Your task to perform on an android device: turn on the 24-hour format for clock Image 0: 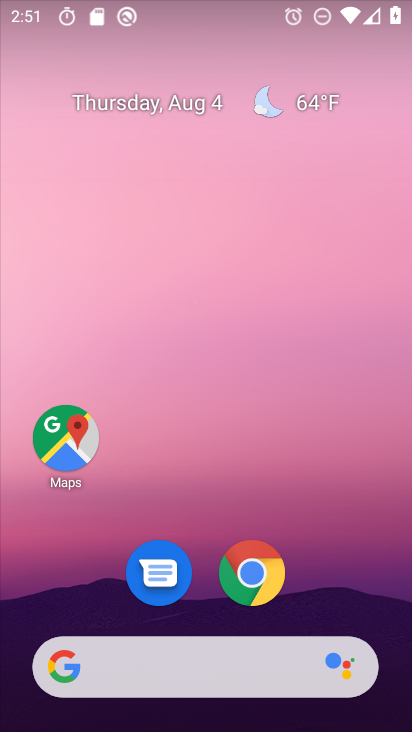
Step 0: drag from (327, 505) to (337, 59)
Your task to perform on an android device: turn on the 24-hour format for clock Image 1: 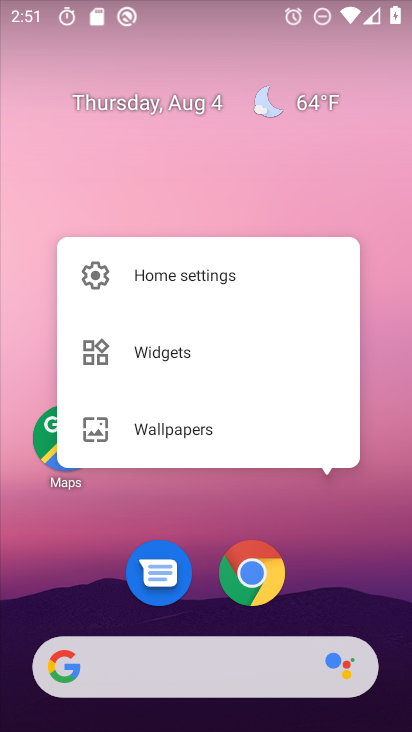
Step 1: click (350, 172)
Your task to perform on an android device: turn on the 24-hour format for clock Image 2: 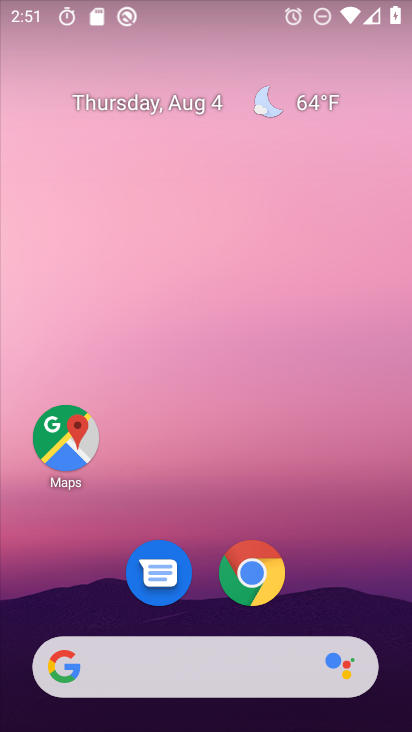
Step 2: drag from (345, 522) to (350, 58)
Your task to perform on an android device: turn on the 24-hour format for clock Image 3: 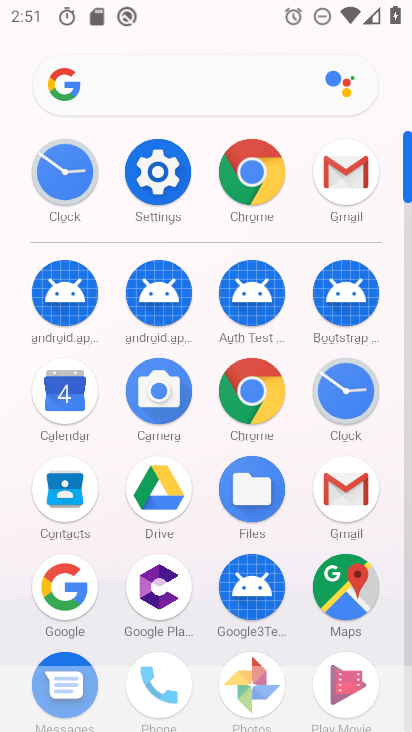
Step 3: click (365, 377)
Your task to perform on an android device: turn on the 24-hour format for clock Image 4: 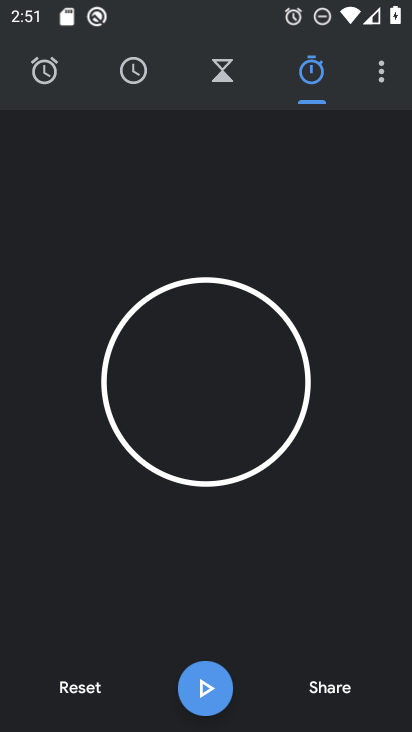
Step 4: click (375, 67)
Your task to perform on an android device: turn on the 24-hour format for clock Image 5: 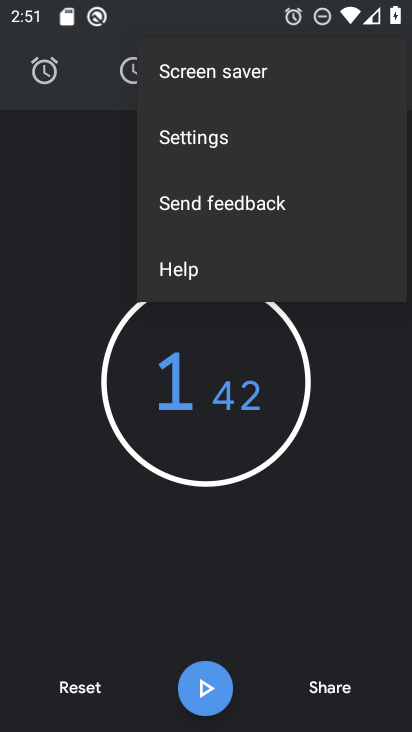
Step 5: click (189, 141)
Your task to perform on an android device: turn on the 24-hour format for clock Image 6: 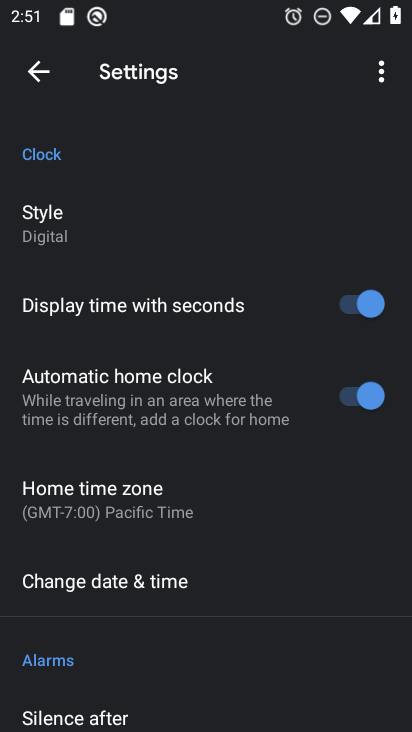
Step 6: click (206, 577)
Your task to perform on an android device: turn on the 24-hour format for clock Image 7: 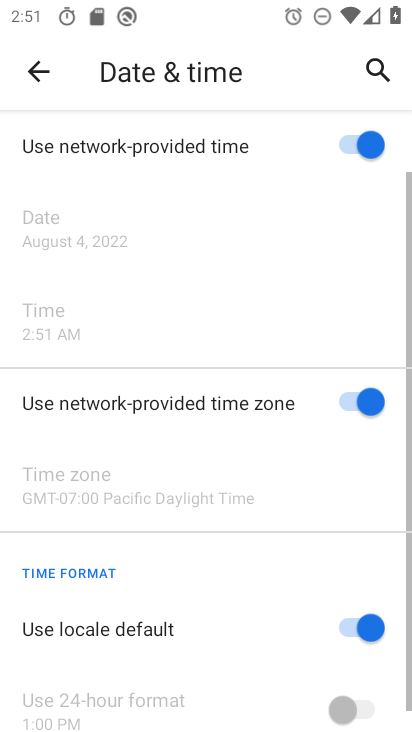
Step 7: drag from (211, 568) to (242, 139)
Your task to perform on an android device: turn on the 24-hour format for clock Image 8: 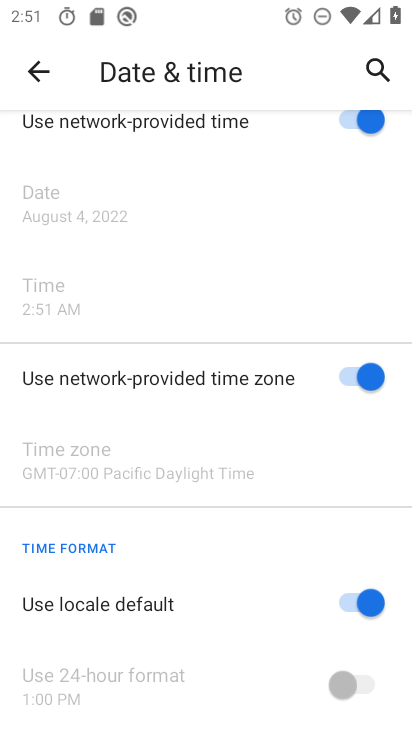
Step 8: click (366, 611)
Your task to perform on an android device: turn on the 24-hour format for clock Image 9: 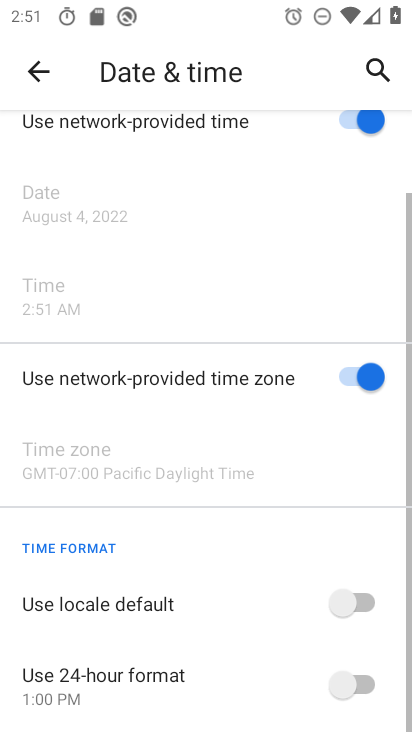
Step 9: click (349, 679)
Your task to perform on an android device: turn on the 24-hour format for clock Image 10: 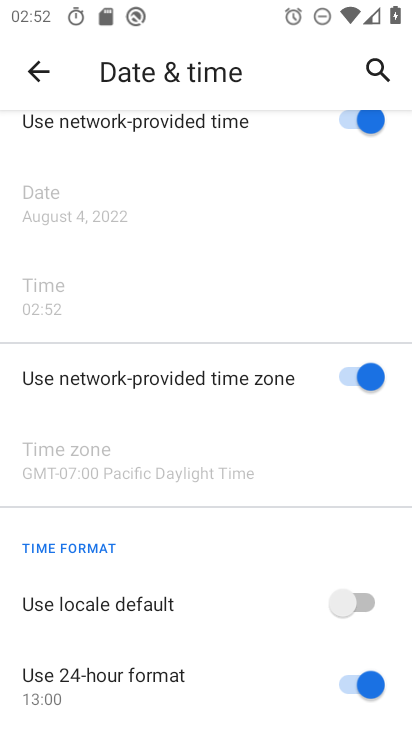
Step 10: task complete